Your task to perform on an android device: Open calendar and show me the first week of next month Image 0: 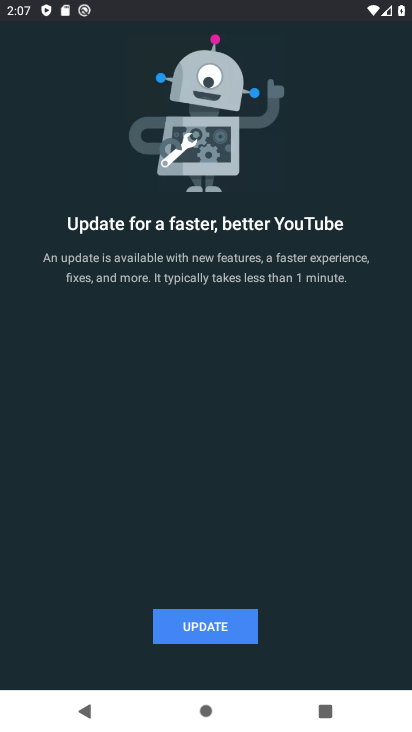
Step 0: press back button
Your task to perform on an android device: Open calendar and show me the first week of next month Image 1: 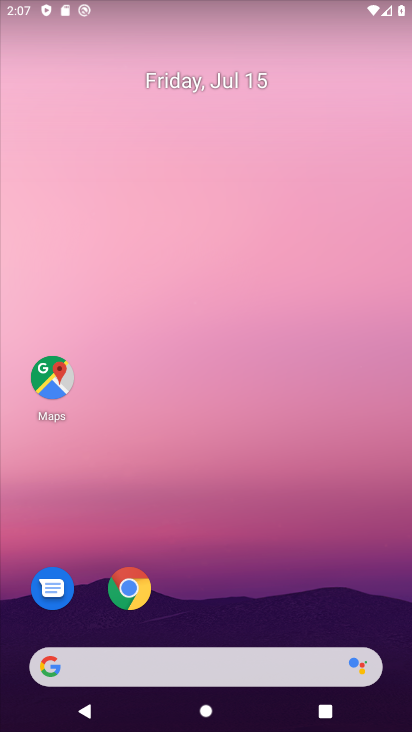
Step 1: drag from (282, 601) to (263, 0)
Your task to perform on an android device: Open calendar and show me the first week of next month Image 2: 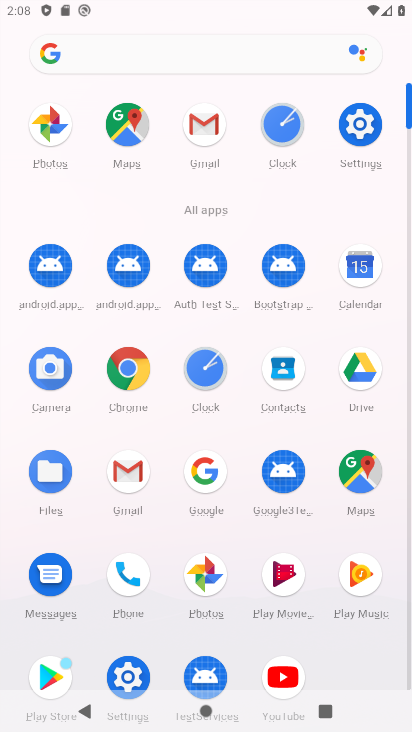
Step 2: click (362, 260)
Your task to perform on an android device: Open calendar and show me the first week of next month Image 3: 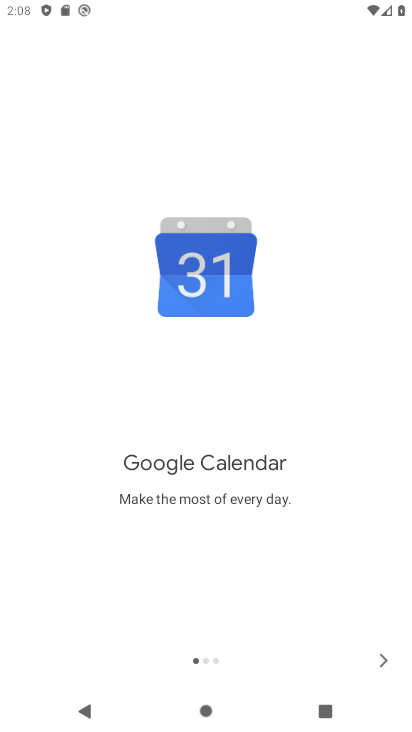
Step 3: click (383, 662)
Your task to perform on an android device: Open calendar and show me the first week of next month Image 4: 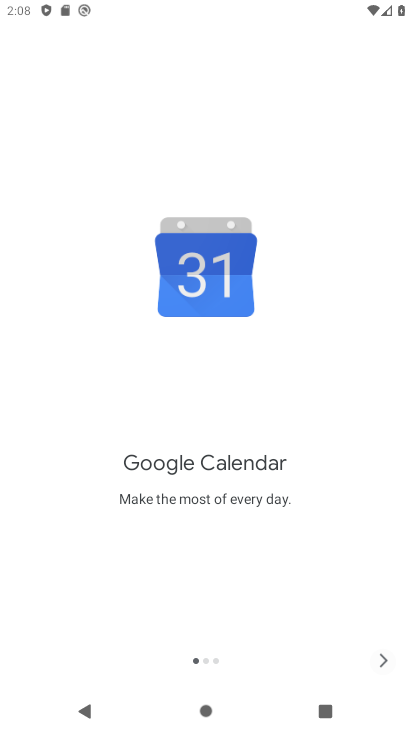
Step 4: click (383, 662)
Your task to perform on an android device: Open calendar and show me the first week of next month Image 5: 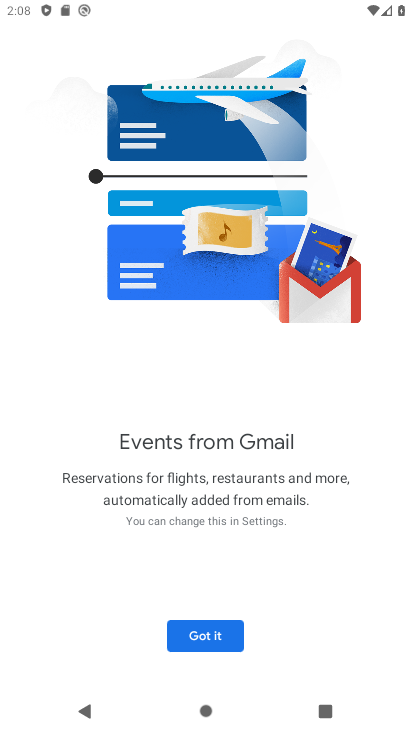
Step 5: click (222, 637)
Your task to perform on an android device: Open calendar and show me the first week of next month Image 6: 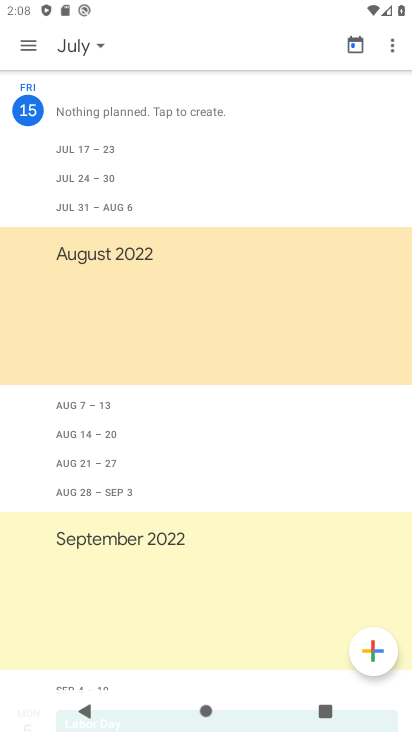
Step 6: click (29, 50)
Your task to perform on an android device: Open calendar and show me the first week of next month Image 7: 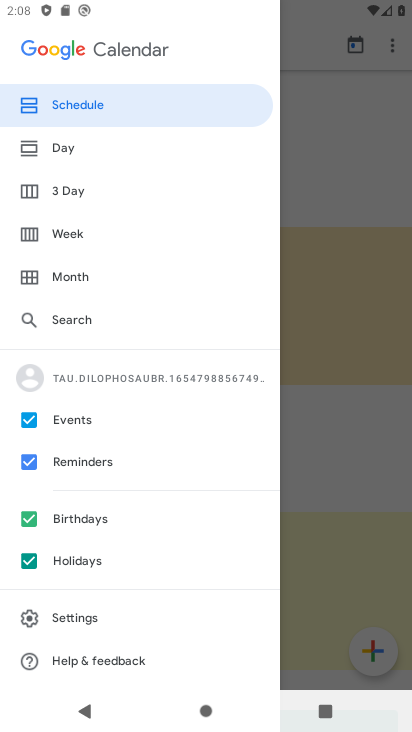
Step 7: click (101, 229)
Your task to perform on an android device: Open calendar and show me the first week of next month Image 8: 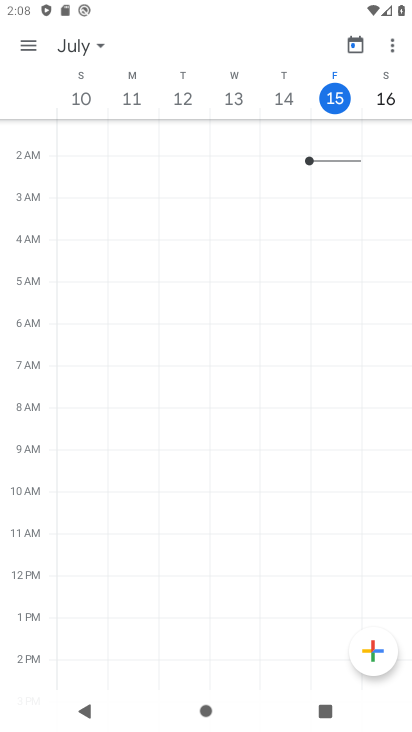
Step 8: click (97, 50)
Your task to perform on an android device: Open calendar and show me the first week of next month Image 9: 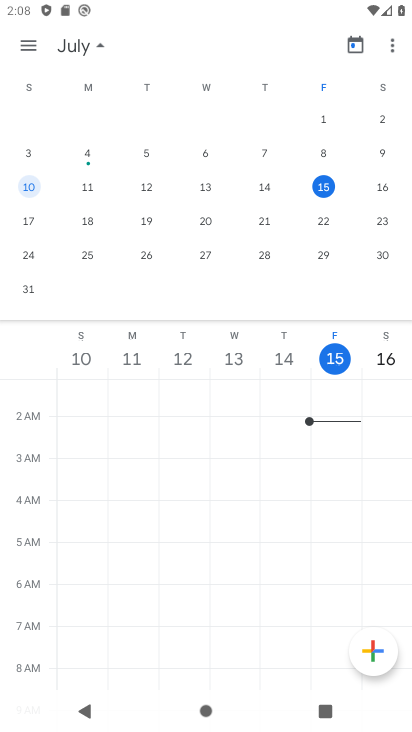
Step 9: drag from (307, 240) to (2, 225)
Your task to perform on an android device: Open calendar and show me the first week of next month Image 10: 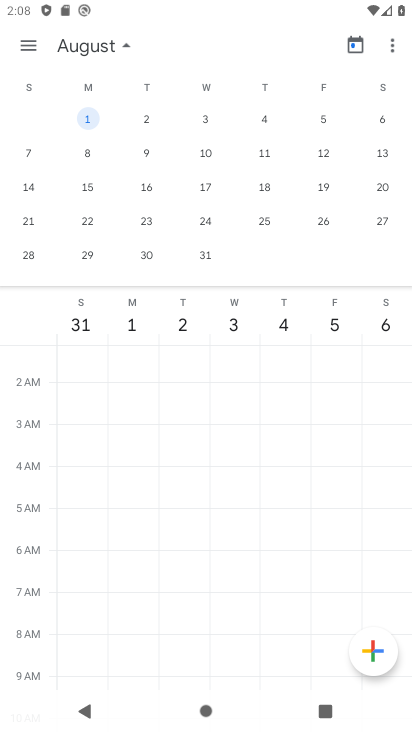
Step 10: click (147, 116)
Your task to perform on an android device: Open calendar and show me the first week of next month Image 11: 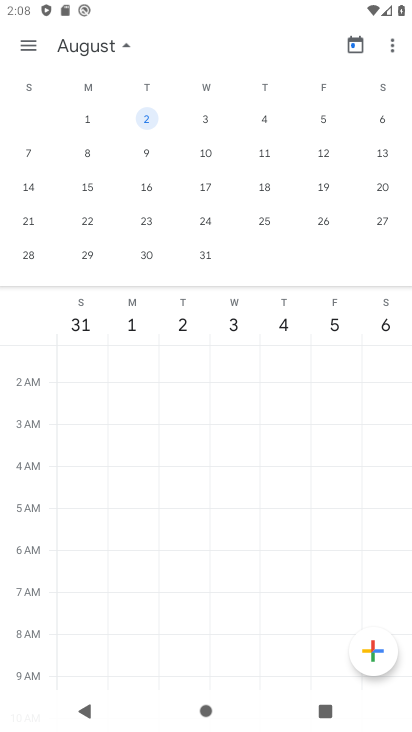
Step 11: task complete